Your task to perform on an android device: Search for vegetarian restaurants on Maps Image 0: 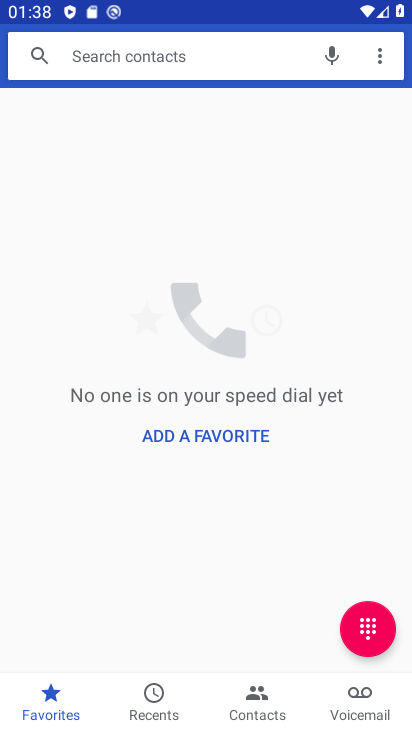
Step 0: press home button
Your task to perform on an android device: Search for vegetarian restaurants on Maps Image 1: 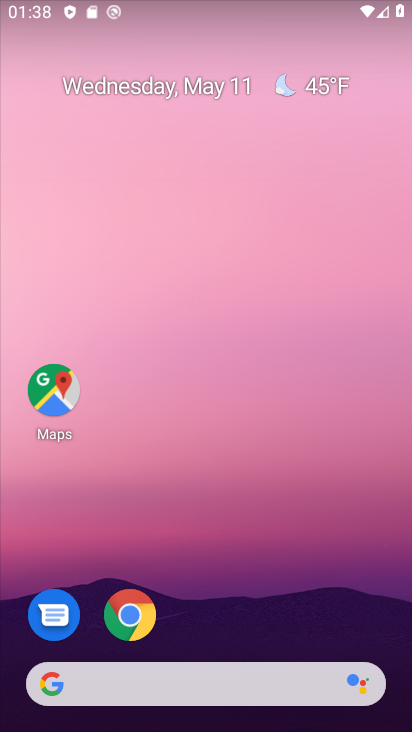
Step 1: drag from (343, 622) to (343, 181)
Your task to perform on an android device: Search for vegetarian restaurants on Maps Image 2: 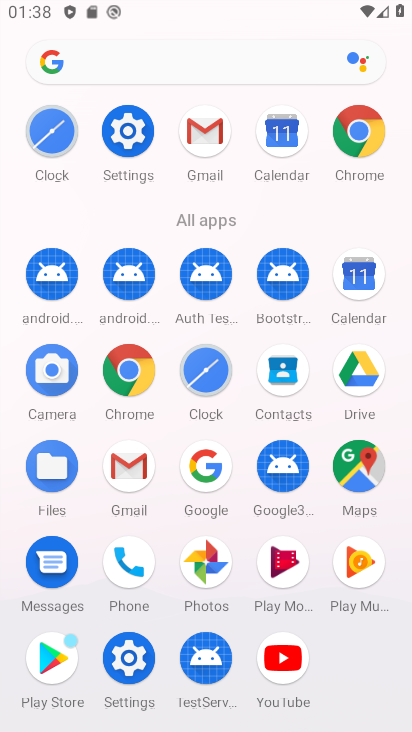
Step 2: click (357, 456)
Your task to perform on an android device: Search for vegetarian restaurants on Maps Image 3: 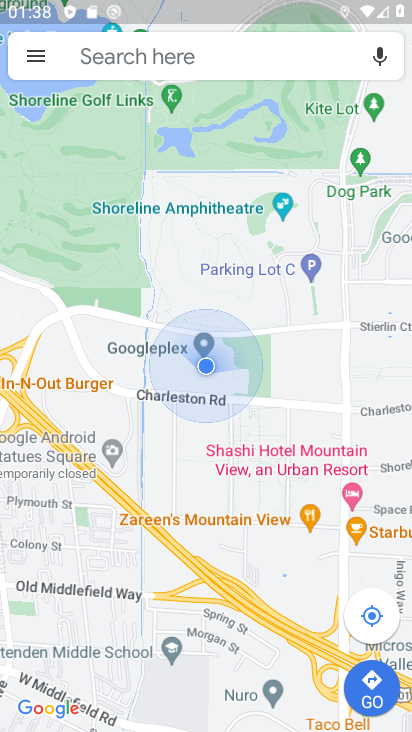
Step 3: click (209, 59)
Your task to perform on an android device: Search for vegetarian restaurants on Maps Image 4: 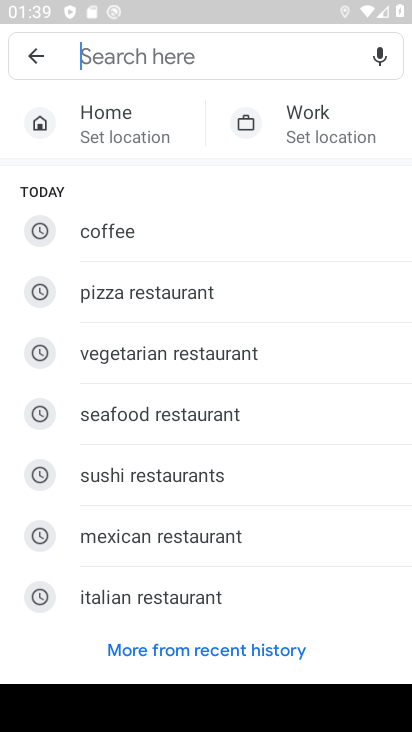
Step 4: click (161, 359)
Your task to perform on an android device: Search for vegetarian restaurants on Maps Image 5: 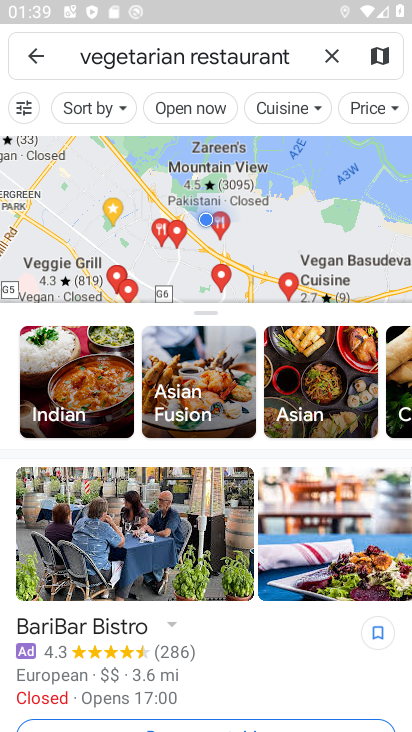
Step 5: task complete